Your task to perform on an android device: change keyboard looks Image 0: 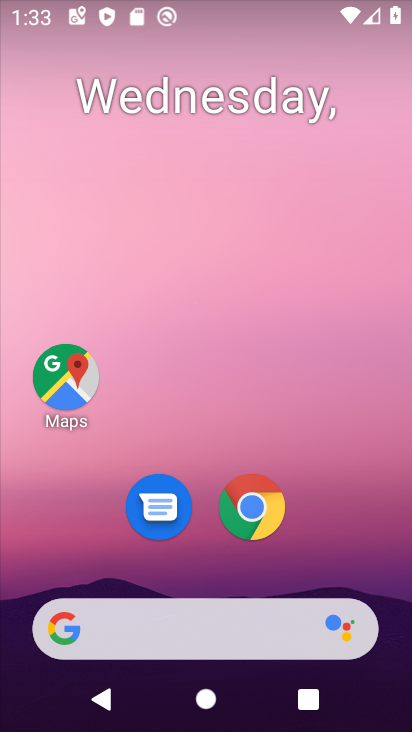
Step 0: drag from (382, 566) to (356, 176)
Your task to perform on an android device: change keyboard looks Image 1: 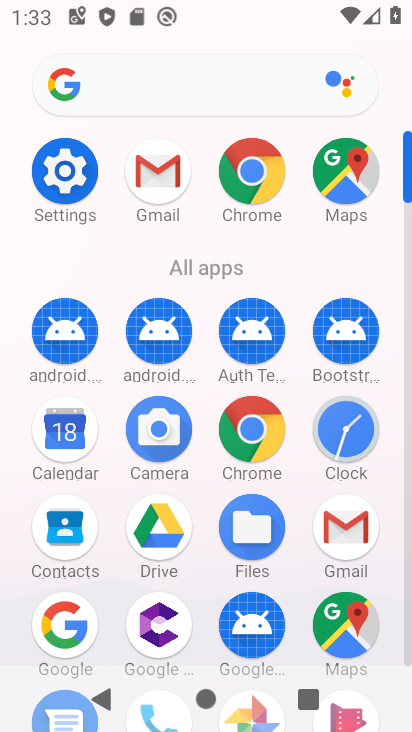
Step 1: click (44, 184)
Your task to perform on an android device: change keyboard looks Image 2: 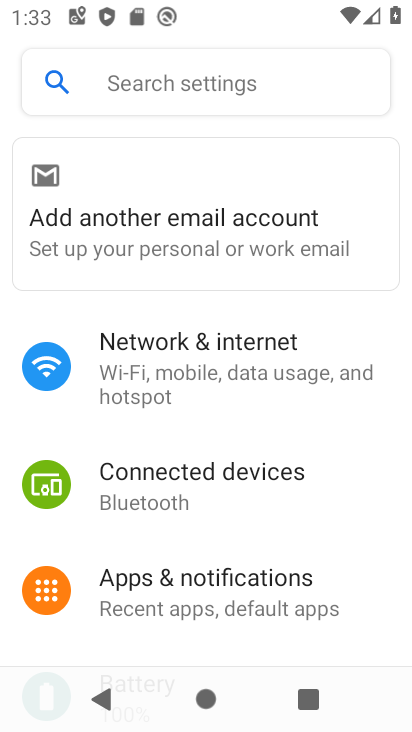
Step 2: drag from (269, 658) to (283, 281)
Your task to perform on an android device: change keyboard looks Image 3: 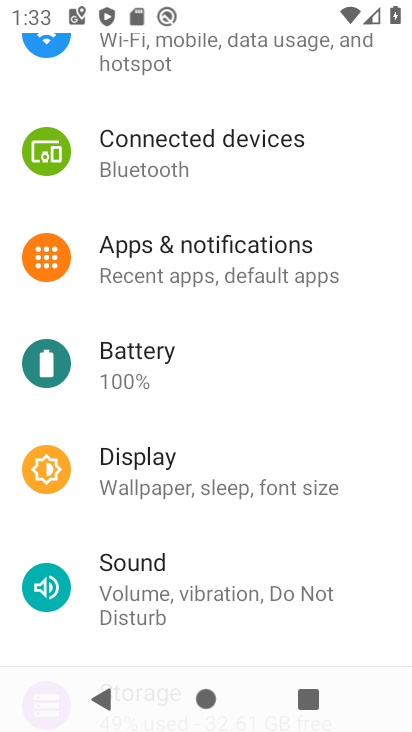
Step 3: drag from (303, 602) to (301, 185)
Your task to perform on an android device: change keyboard looks Image 4: 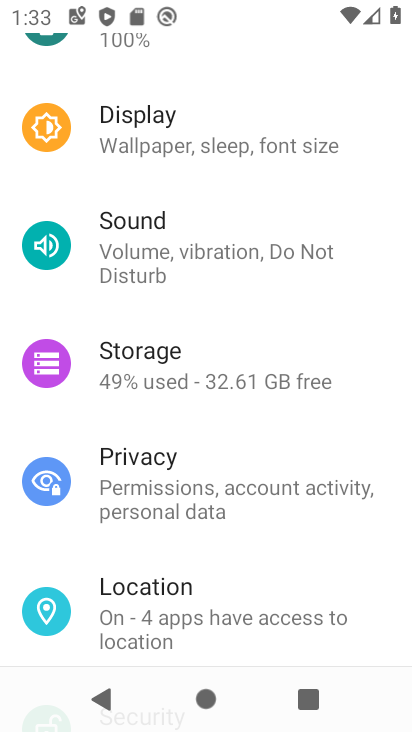
Step 4: drag from (336, 612) to (310, 175)
Your task to perform on an android device: change keyboard looks Image 5: 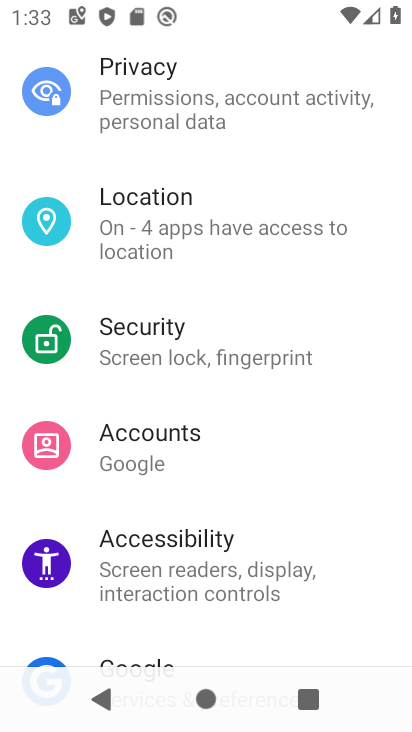
Step 5: drag from (350, 540) to (328, 169)
Your task to perform on an android device: change keyboard looks Image 6: 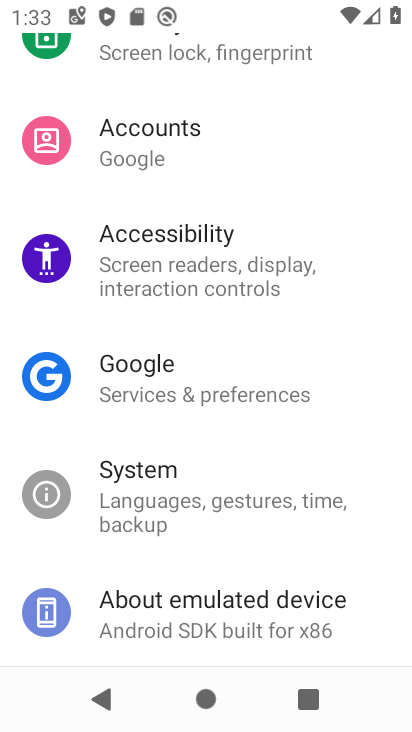
Step 6: click (237, 507)
Your task to perform on an android device: change keyboard looks Image 7: 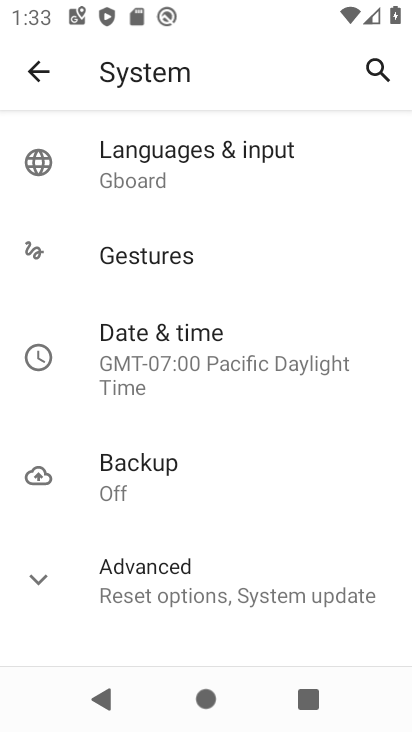
Step 7: click (223, 154)
Your task to perform on an android device: change keyboard looks Image 8: 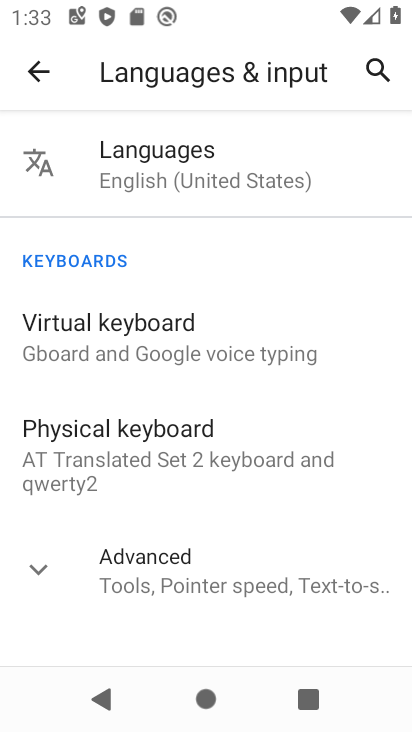
Step 8: click (207, 347)
Your task to perform on an android device: change keyboard looks Image 9: 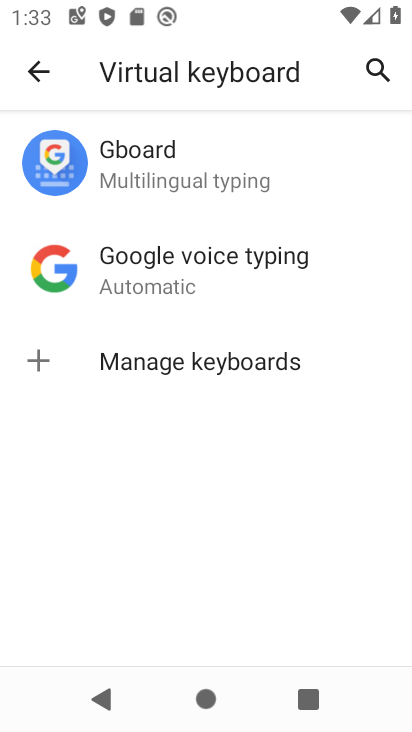
Step 9: click (178, 180)
Your task to perform on an android device: change keyboard looks Image 10: 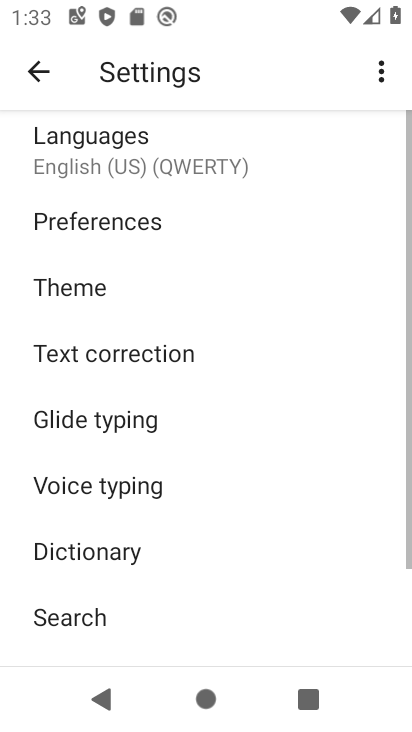
Step 10: click (129, 308)
Your task to perform on an android device: change keyboard looks Image 11: 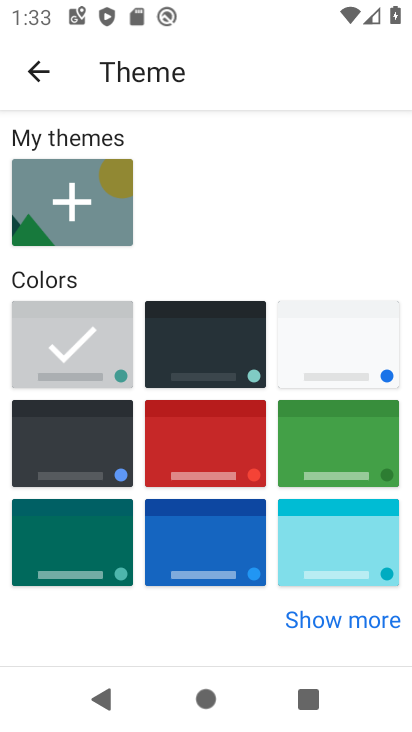
Step 11: click (155, 364)
Your task to perform on an android device: change keyboard looks Image 12: 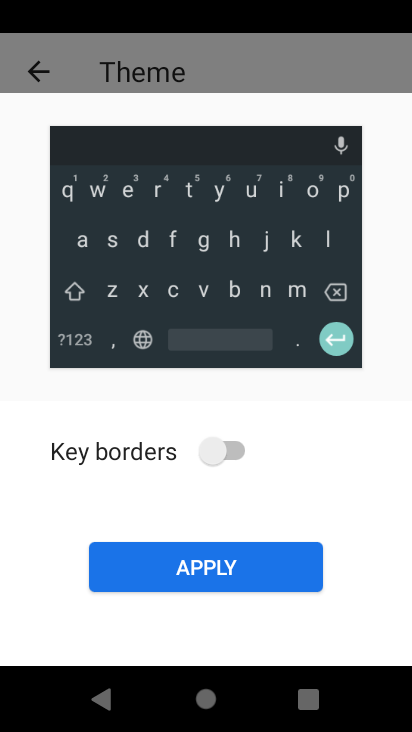
Step 12: click (190, 587)
Your task to perform on an android device: change keyboard looks Image 13: 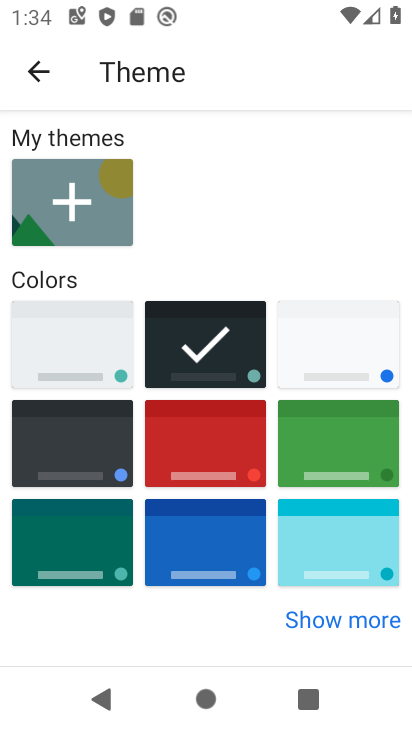
Step 13: task complete